Your task to perform on an android device: Open ESPN.com Image 0: 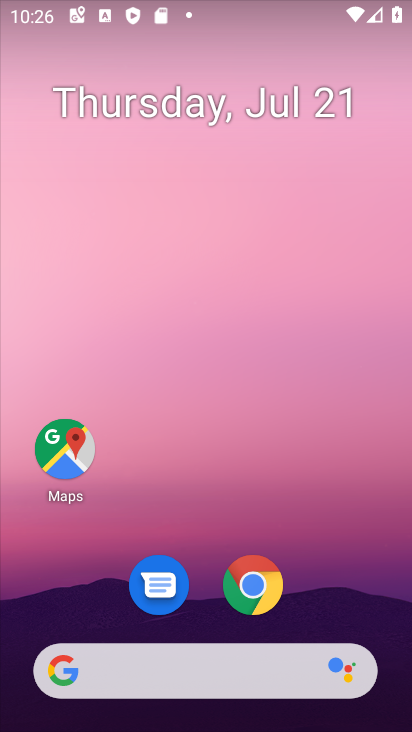
Step 0: click (229, 684)
Your task to perform on an android device: Open ESPN.com Image 1: 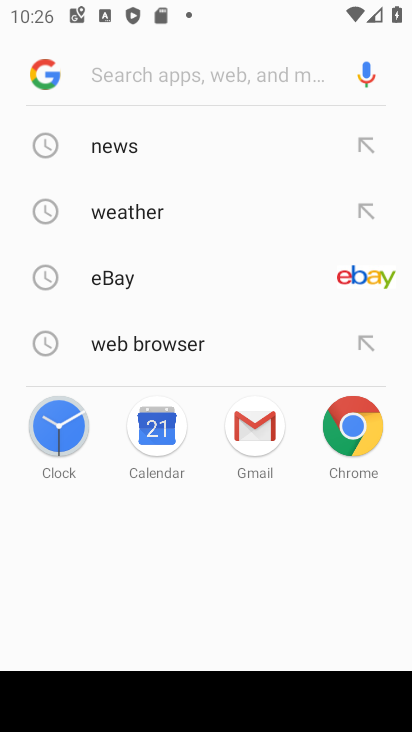
Step 1: type "espn.com"
Your task to perform on an android device: Open ESPN.com Image 2: 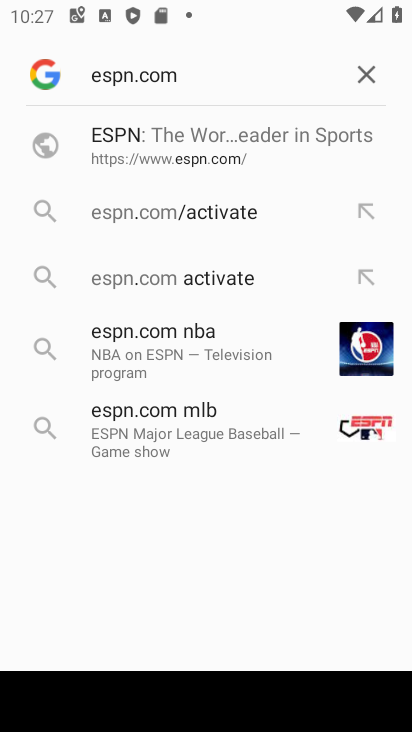
Step 2: click (222, 151)
Your task to perform on an android device: Open ESPN.com Image 3: 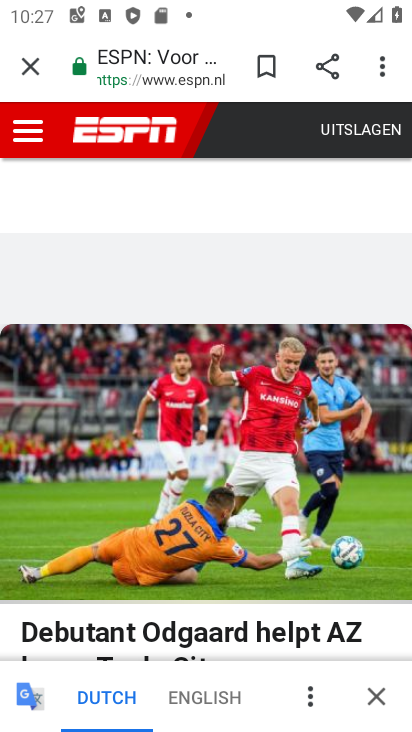
Step 3: task complete